Your task to perform on an android device: turn on translation in the chrome app Image 0: 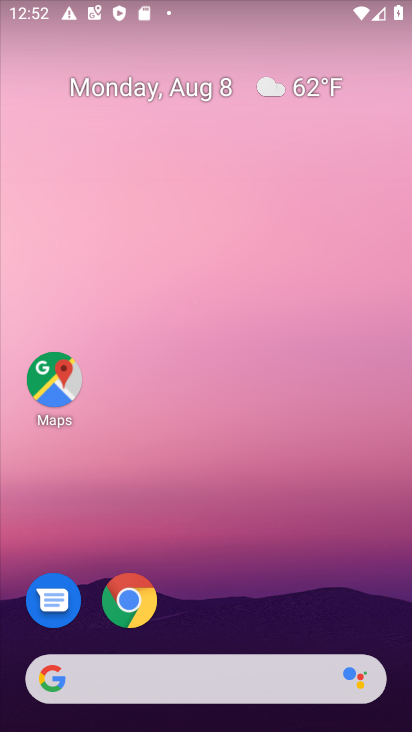
Step 0: click (142, 609)
Your task to perform on an android device: turn on translation in the chrome app Image 1: 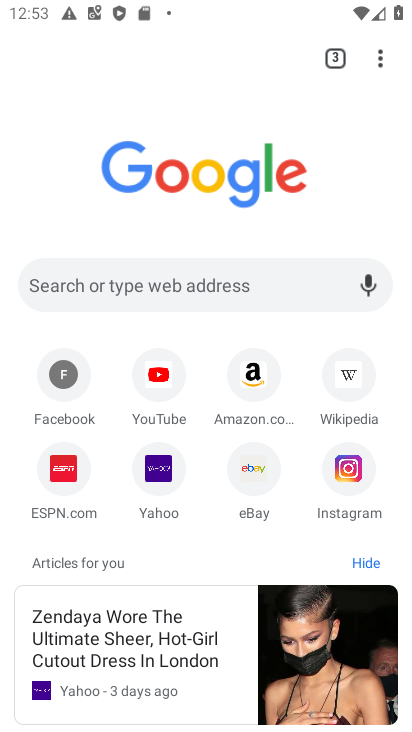
Step 1: click (386, 64)
Your task to perform on an android device: turn on translation in the chrome app Image 2: 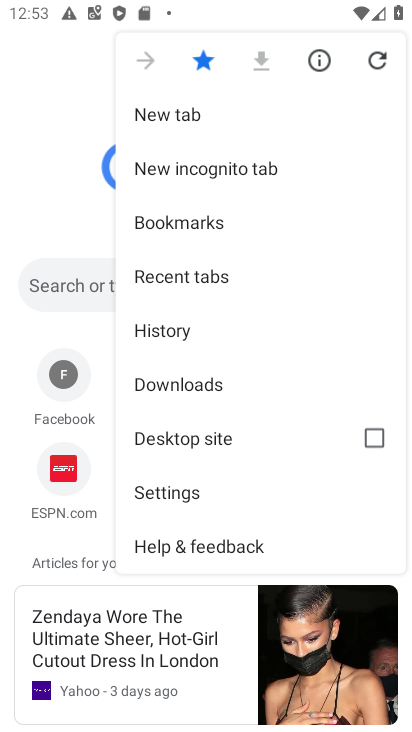
Step 2: click (173, 489)
Your task to perform on an android device: turn on translation in the chrome app Image 3: 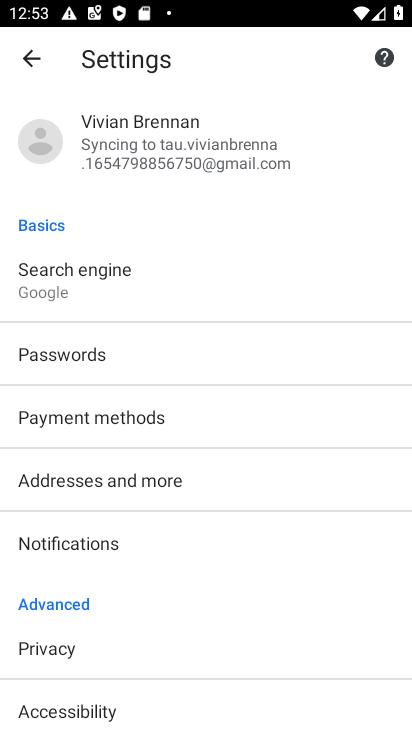
Step 3: drag from (170, 597) to (176, 311)
Your task to perform on an android device: turn on translation in the chrome app Image 4: 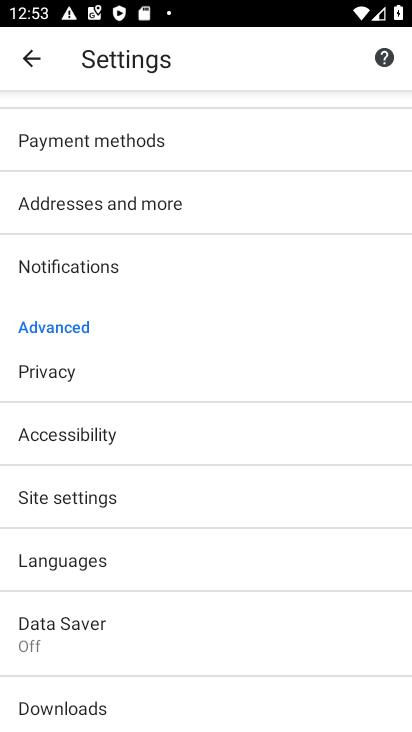
Step 4: click (126, 553)
Your task to perform on an android device: turn on translation in the chrome app Image 5: 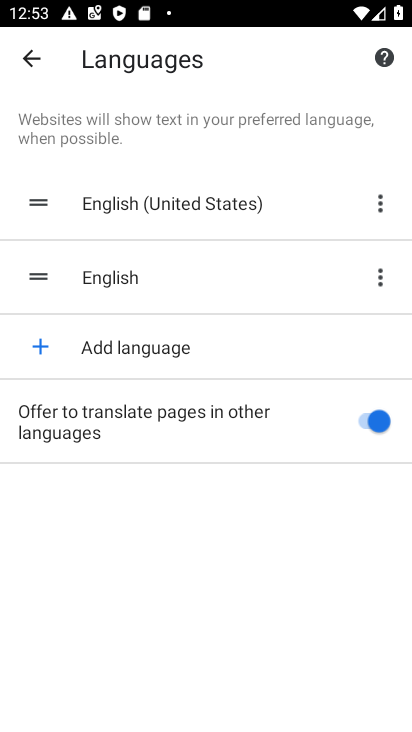
Step 5: task complete